Your task to perform on an android device: visit the assistant section in the google photos Image 0: 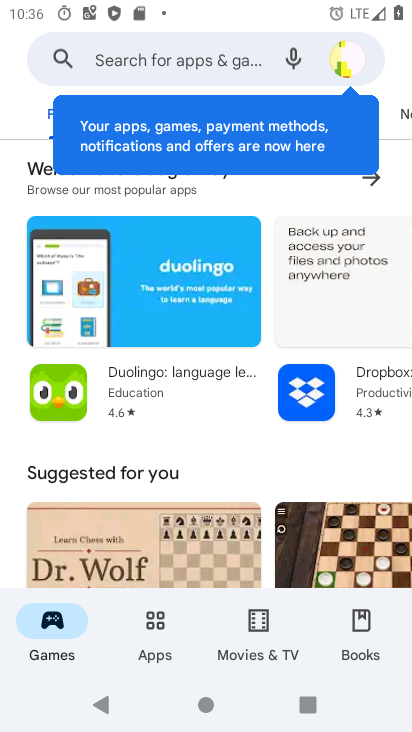
Step 0: press back button
Your task to perform on an android device: visit the assistant section in the google photos Image 1: 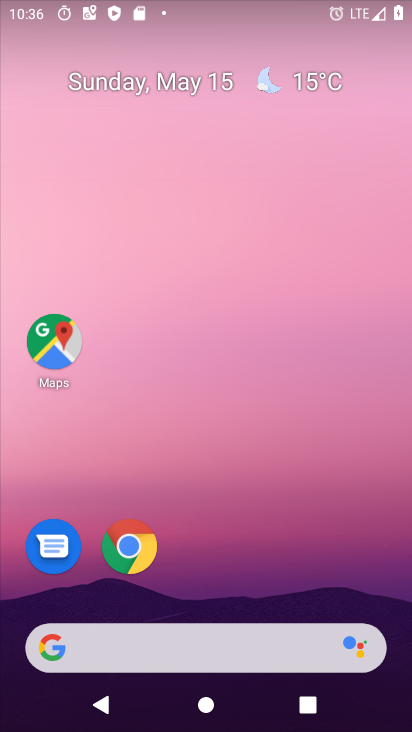
Step 1: drag from (275, 677) to (198, 29)
Your task to perform on an android device: visit the assistant section in the google photos Image 2: 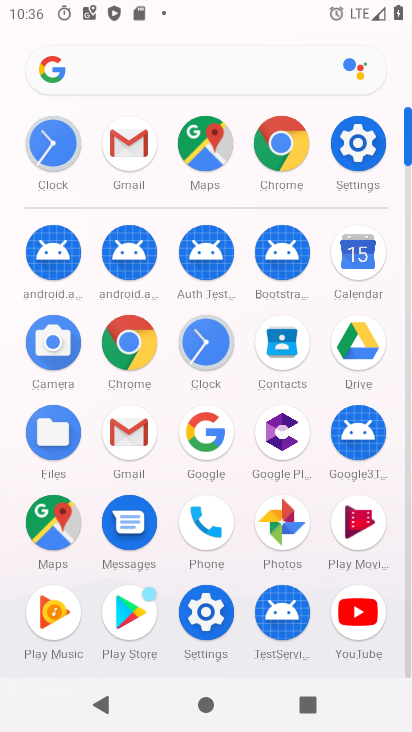
Step 2: click (270, 521)
Your task to perform on an android device: visit the assistant section in the google photos Image 3: 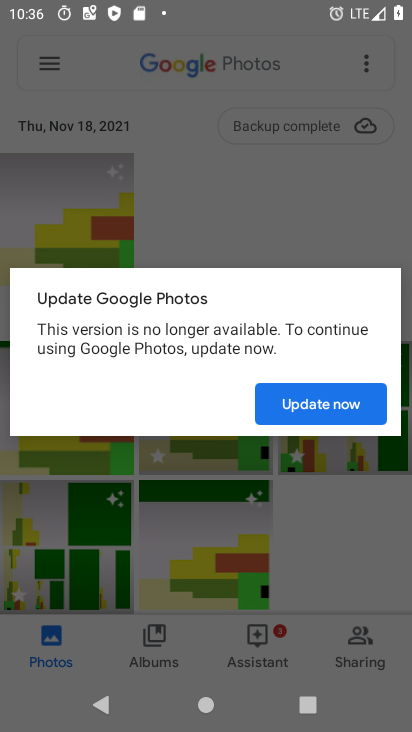
Step 3: click (322, 406)
Your task to perform on an android device: visit the assistant section in the google photos Image 4: 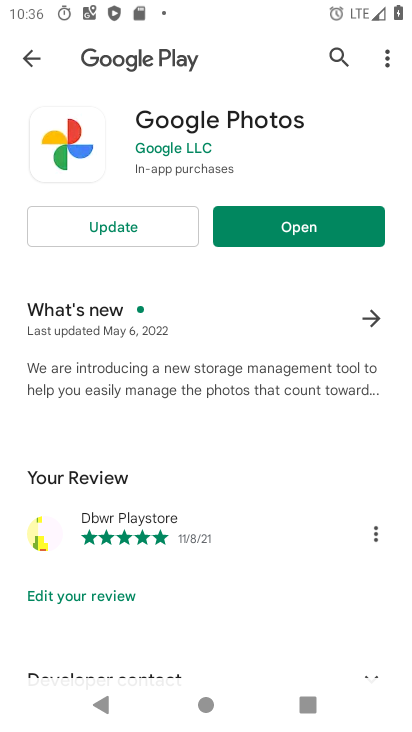
Step 4: click (108, 222)
Your task to perform on an android device: visit the assistant section in the google photos Image 5: 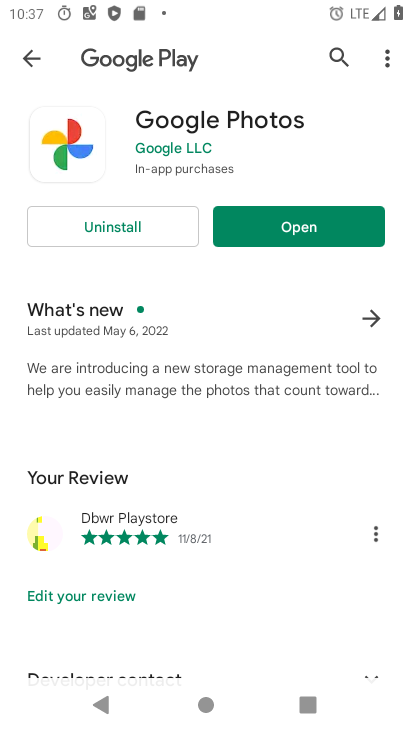
Step 5: task complete